Your task to perform on an android device: turn on priority inbox in the gmail app Image 0: 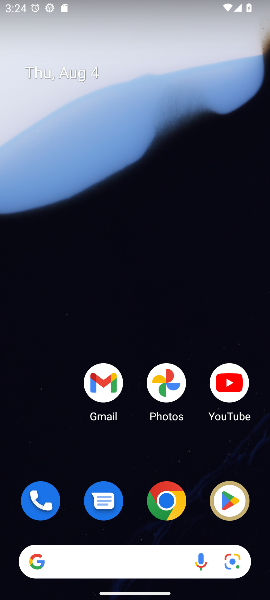
Step 0: click (105, 389)
Your task to perform on an android device: turn on priority inbox in the gmail app Image 1: 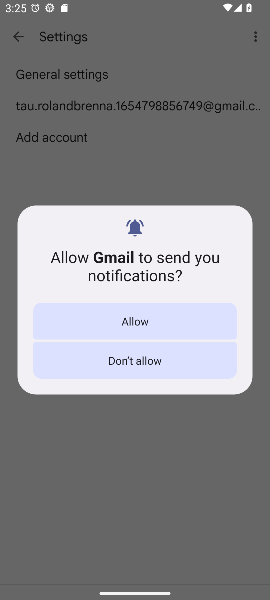
Step 1: click (135, 314)
Your task to perform on an android device: turn on priority inbox in the gmail app Image 2: 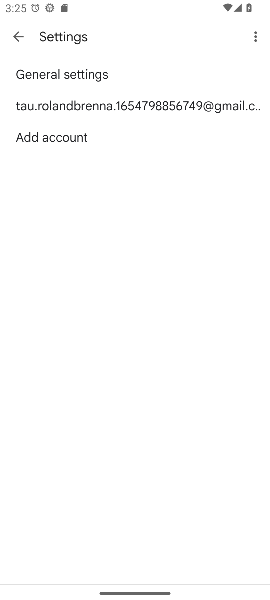
Step 2: click (228, 109)
Your task to perform on an android device: turn on priority inbox in the gmail app Image 3: 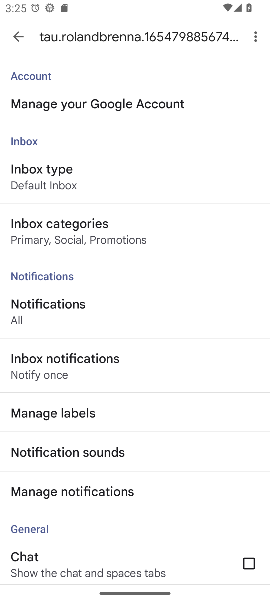
Step 3: click (111, 175)
Your task to perform on an android device: turn on priority inbox in the gmail app Image 4: 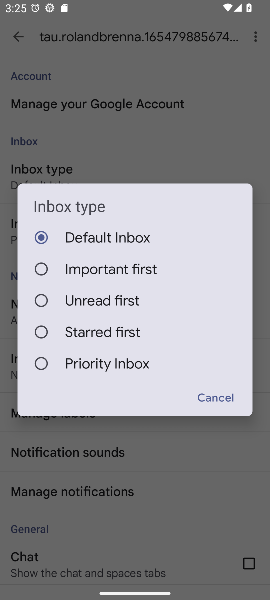
Step 4: click (124, 372)
Your task to perform on an android device: turn on priority inbox in the gmail app Image 5: 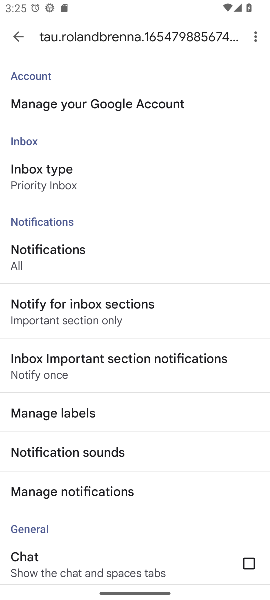
Step 5: task complete